Your task to perform on an android device: Do I have any events this weekend? Image 0: 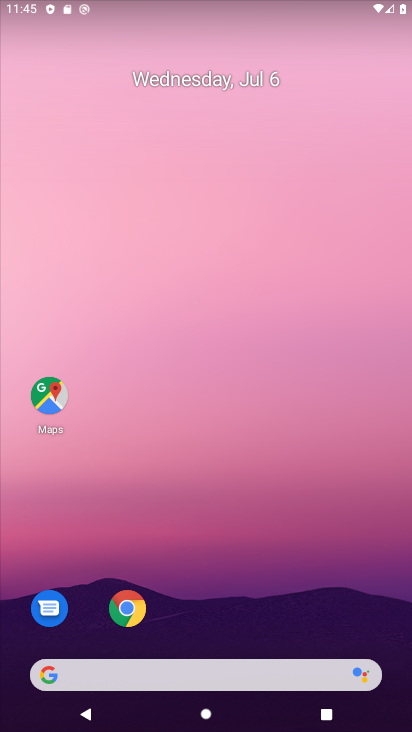
Step 0: drag from (170, 639) to (252, 66)
Your task to perform on an android device: Do I have any events this weekend? Image 1: 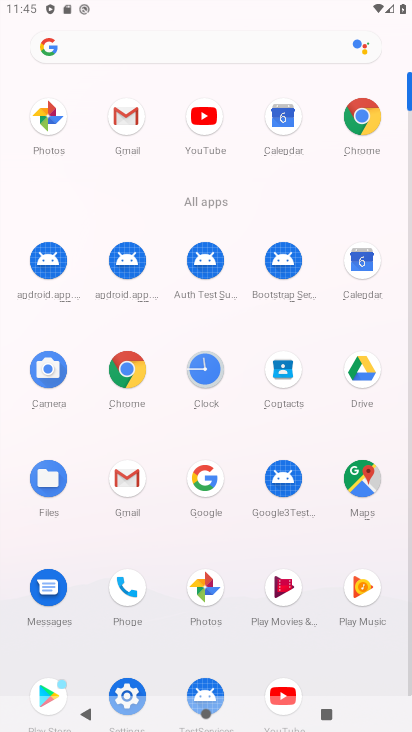
Step 1: click (283, 104)
Your task to perform on an android device: Do I have any events this weekend? Image 2: 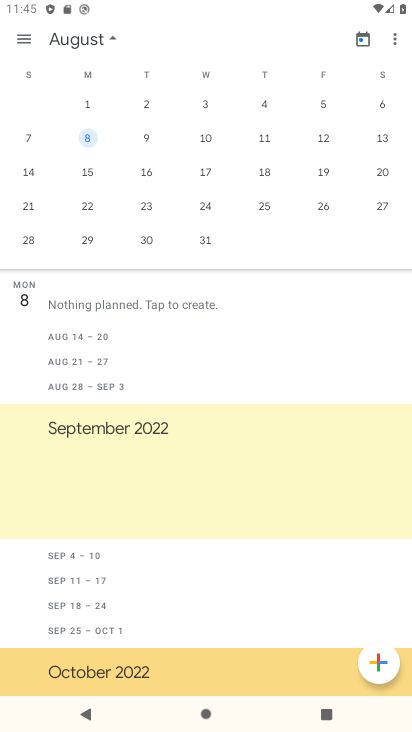
Step 2: click (23, 36)
Your task to perform on an android device: Do I have any events this weekend? Image 3: 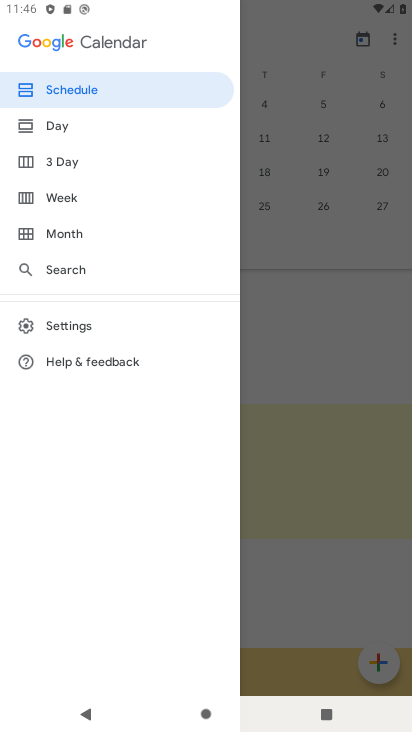
Step 3: click (331, 148)
Your task to perform on an android device: Do I have any events this weekend? Image 4: 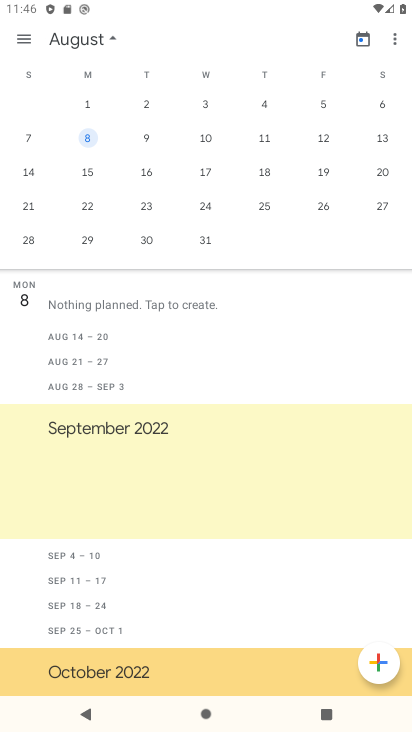
Step 4: task complete